Your task to perform on an android device: Search for sushi restaurants on Maps Image 0: 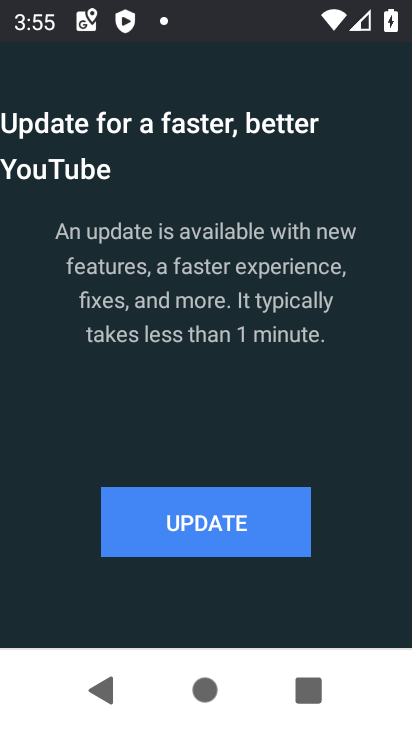
Step 0: task complete